Your task to perform on an android device: Open privacy settings Image 0: 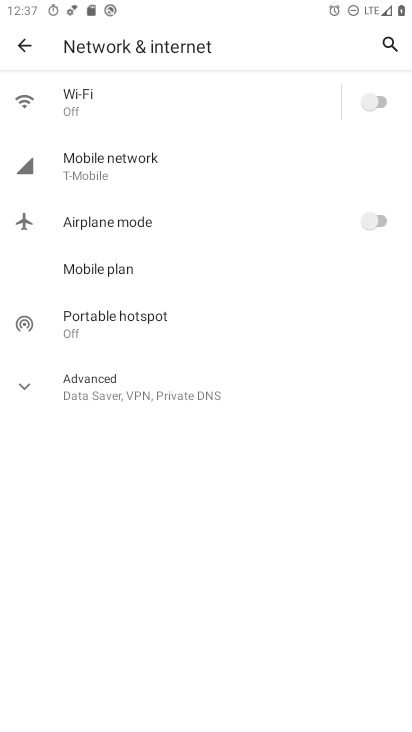
Step 0: press home button
Your task to perform on an android device: Open privacy settings Image 1: 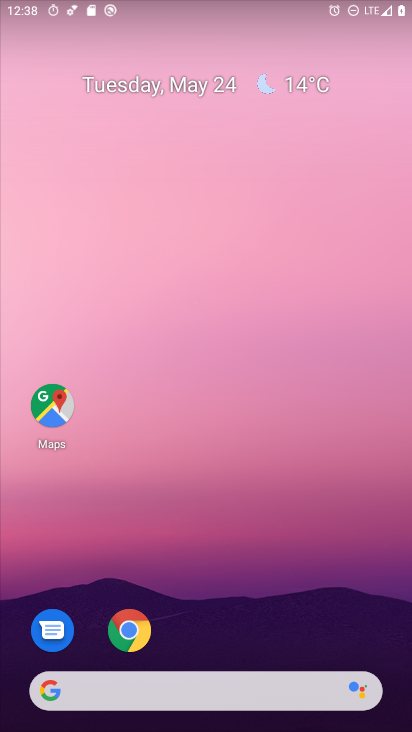
Step 1: drag from (354, 634) to (358, 137)
Your task to perform on an android device: Open privacy settings Image 2: 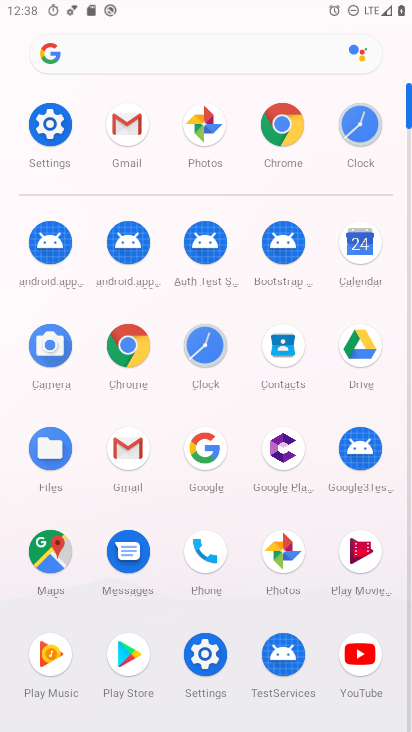
Step 2: click (210, 663)
Your task to perform on an android device: Open privacy settings Image 3: 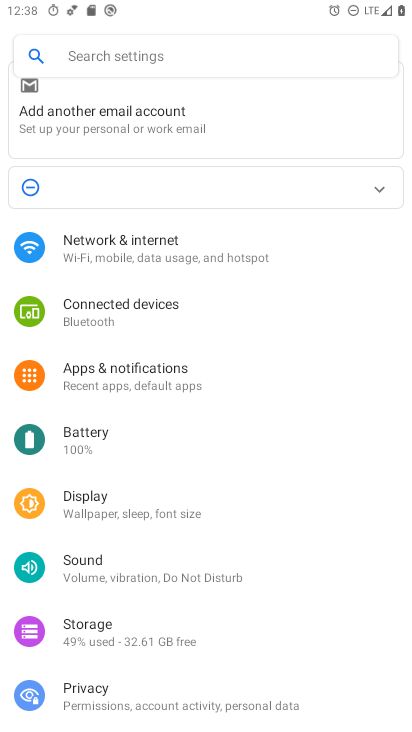
Step 3: click (203, 702)
Your task to perform on an android device: Open privacy settings Image 4: 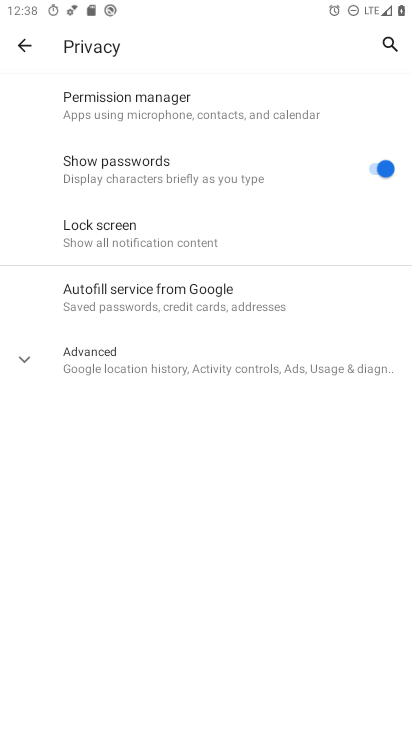
Step 4: task complete